Your task to perform on an android device: star an email in the gmail app Image 0: 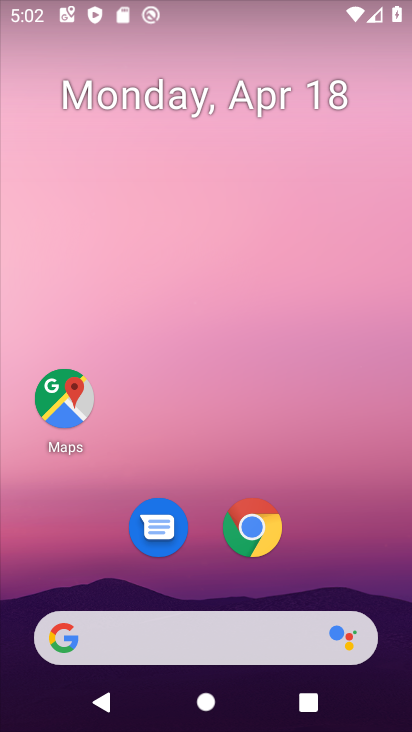
Step 0: drag from (271, 613) to (300, 201)
Your task to perform on an android device: star an email in the gmail app Image 1: 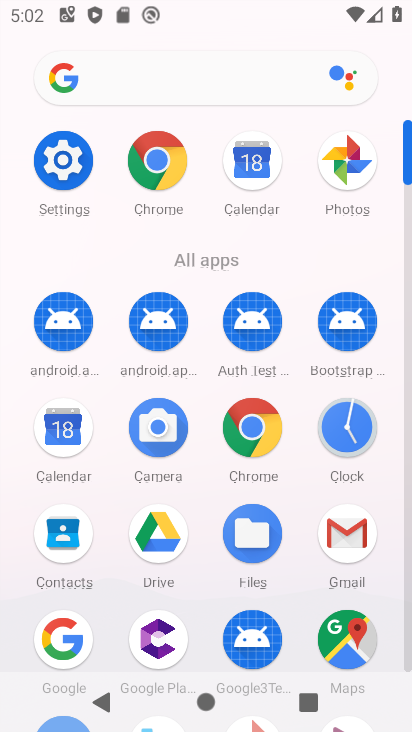
Step 1: click (342, 527)
Your task to perform on an android device: star an email in the gmail app Image 2: 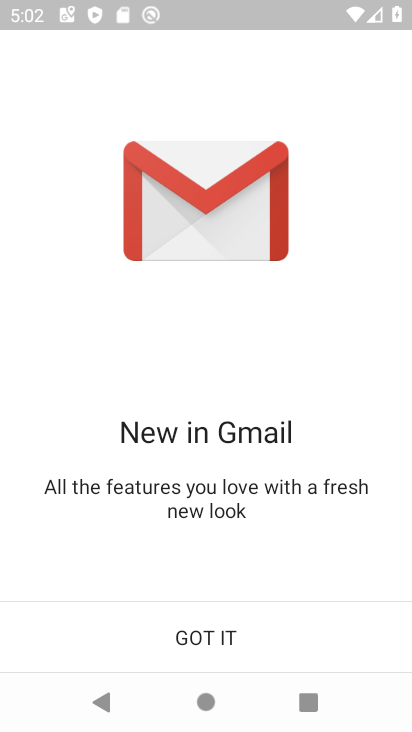
Step 2: click (211, 641)
Your task to perform on an android device: star an email in the gmail app Image 3: 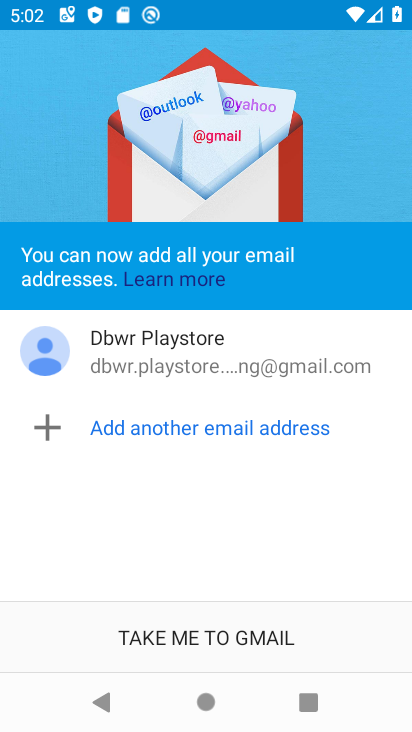
Step 3: click (218, 625)
Your task to perform on an android device: star an email in the gmail app Image 4: 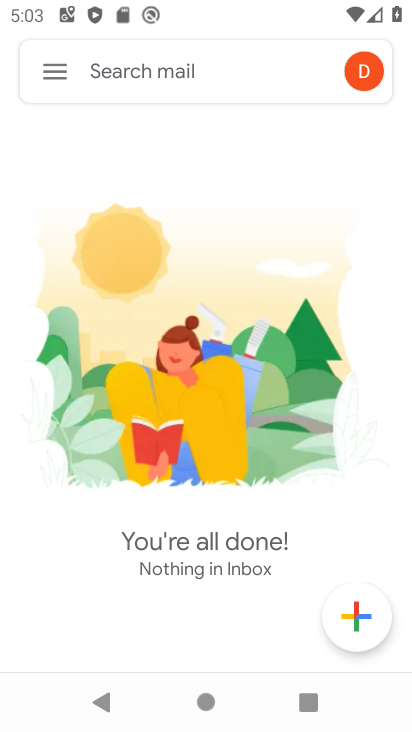
Step 4: click (54, 68)
Your task to perform on an android device: star an email in the gmail app Image 5: 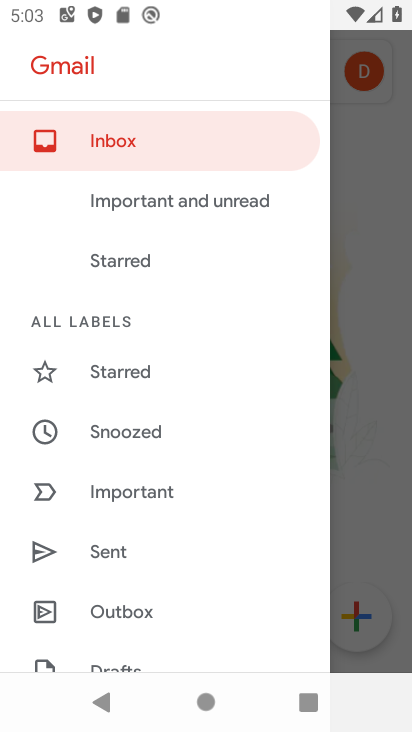
Step 5: click (135, 370)
Your task to perform on an android device: star an email in the gmail app Image 6: 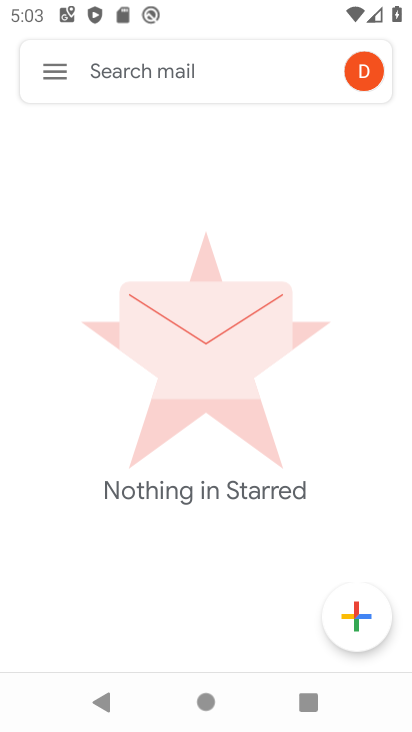
Step 6: task complete